Your task to perform on an android device: show emergency info Image 0: 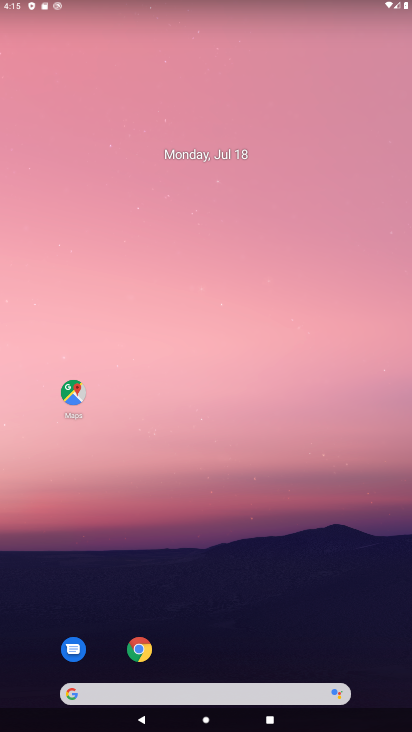
Step 0: drag from (257, 620) to (256, 192)
Your task to perform on an android device: show emergency info Image 1: 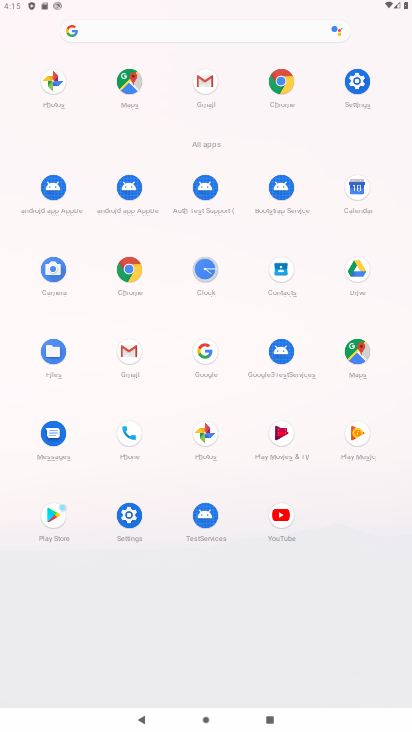
Step 1: click (134, 524)
Your task to perform on an android device: show emergency info Image 2: 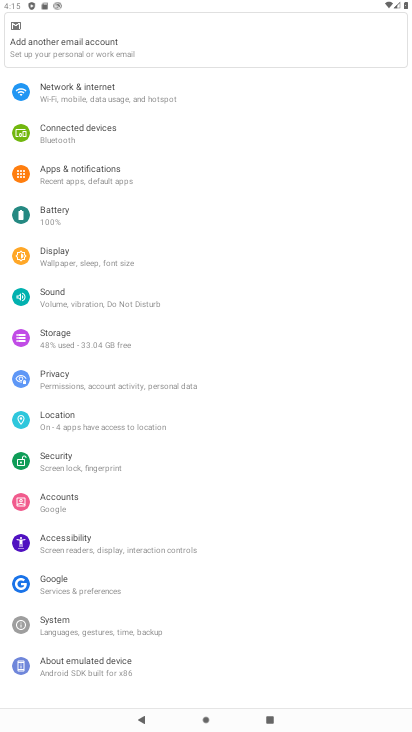
Step 2: drag from (147, 630) to (135, 388)
Your task to perform on an android device: show emergency info Image 3: 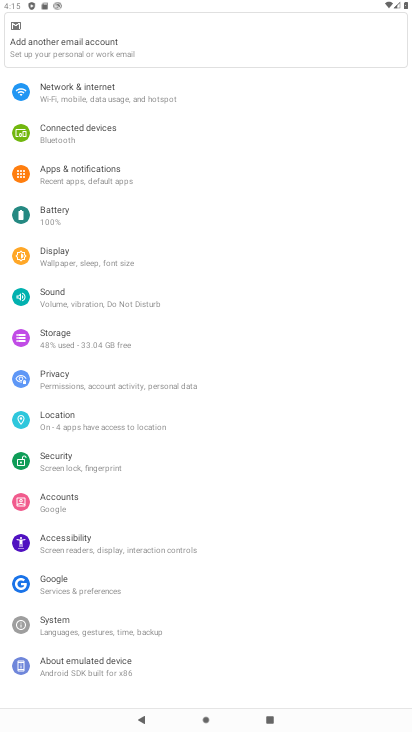
Step 3: click (94, 673)
Your task to perform on an android device: show emergency info Image 4: 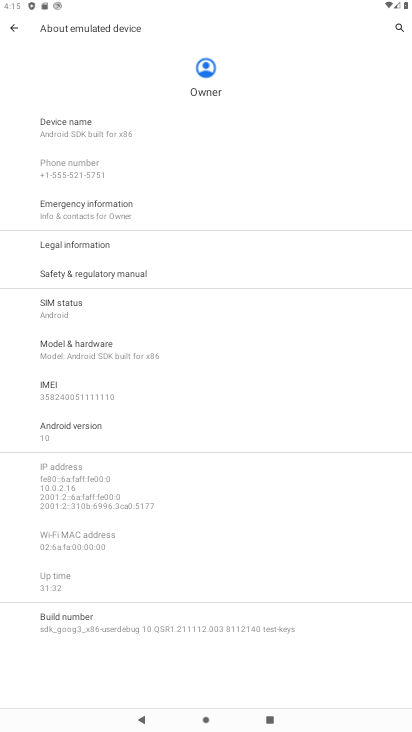
Step 4: click (101, 212)
Your task to perform on an android device: show emergency info Image 5: 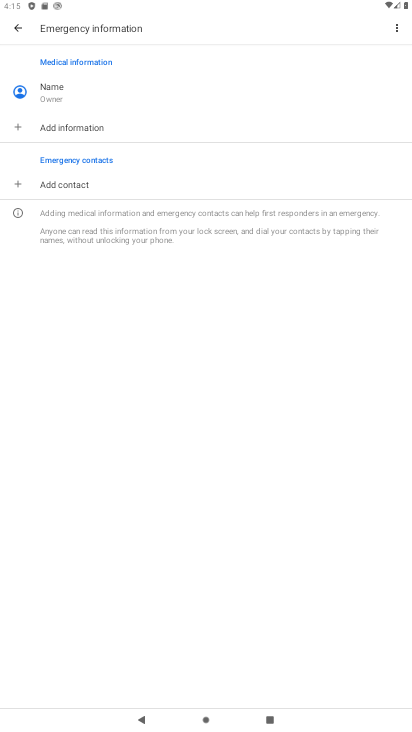
Step 5: task complete